Your task to perform on an android device: Do I have any events today? Image 0: 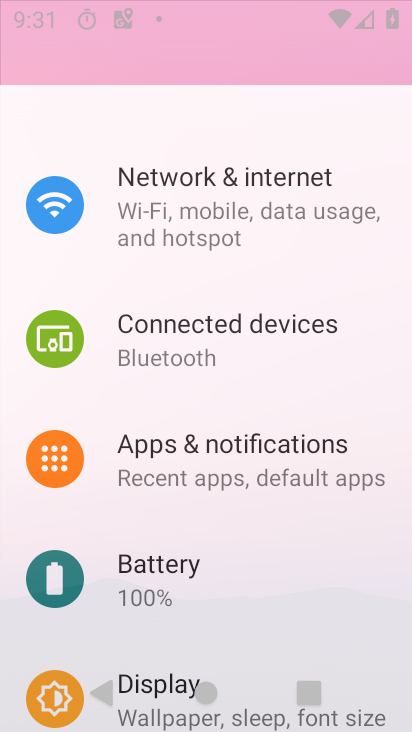
Step 0: drag from (189, 519) to (255, 90)
Your task to perform on an android device: Do I have any events today? Image 1: 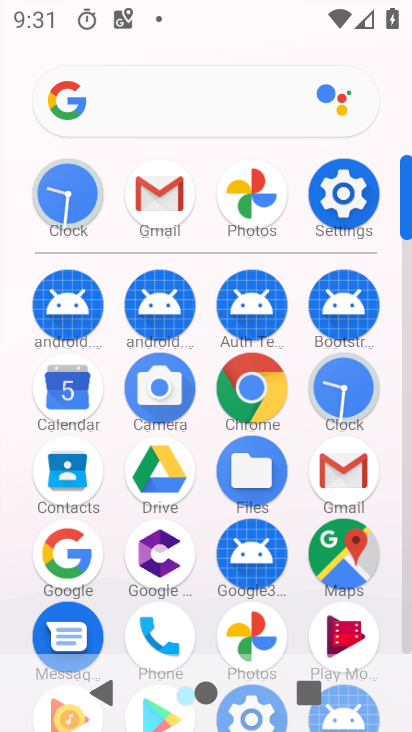
Step 1: click (74, 392)
Your task to perform on an android device: Do I have any events today? Image 2: 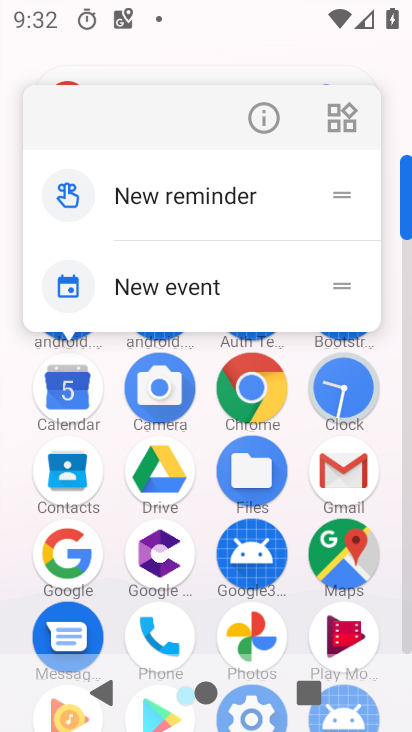
Step 2: click (273, 115)
Your task to perform on an android device: Do I have any events today? Image 3: 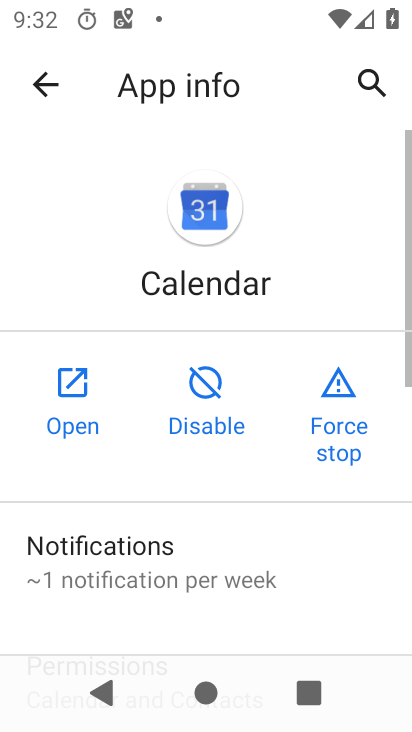
Step 3: click (68, 393)
Your task to perform on an android device: Do I have any events today? Image 4: 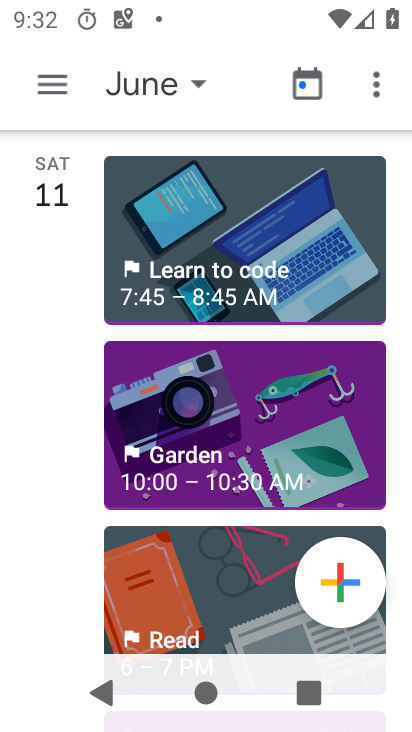
Step 4: drag from (243, 534) to (283, 273)
Your task to perform on an android device: Do I have any events today? Image 5: 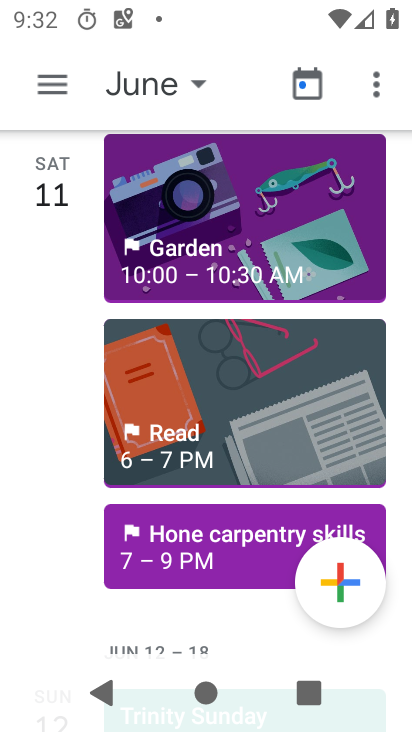
Step 5: drag from (284, 242) to (235, 689)
Your task to perform on an android device: Do I have any events today? Image 6: 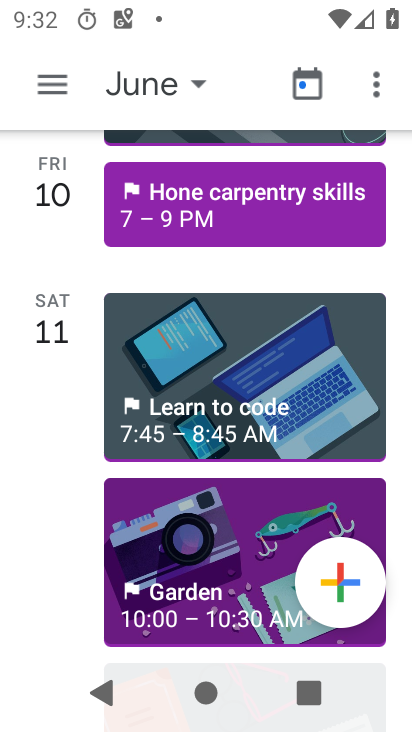
Step 6: drag from (252, 224) to (269, 615)
Your task to perform on an android device: Do I have any events today? Image 7: 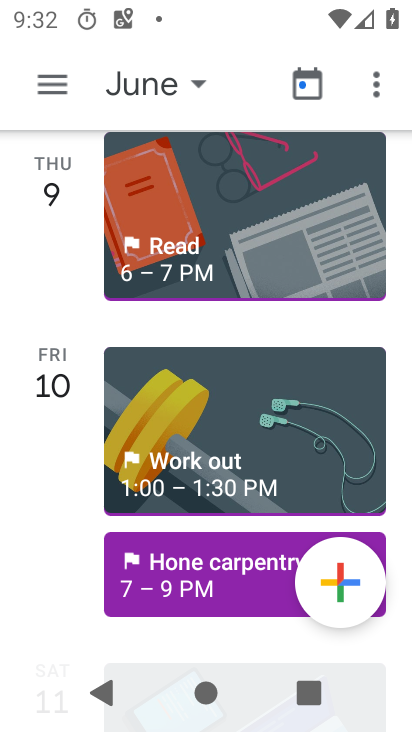
Step 7: click (142, 89)
Your task to perform on an android device: Do I have any events today? Image 8: 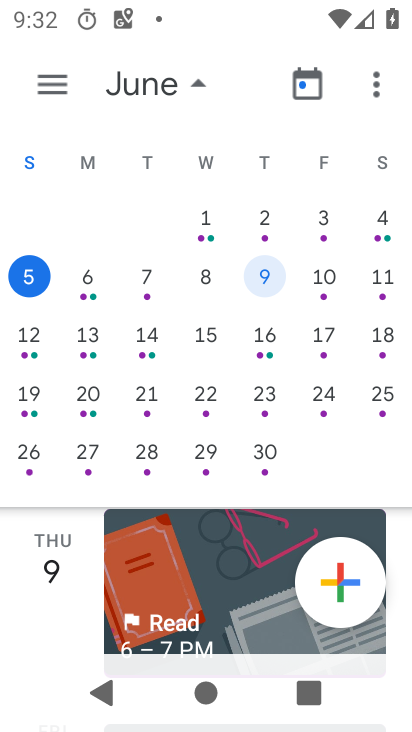
Step 8: drag from (207, 604) to (236, 391)
Your task to perform on an android device: Do I have any events today? Image 9: 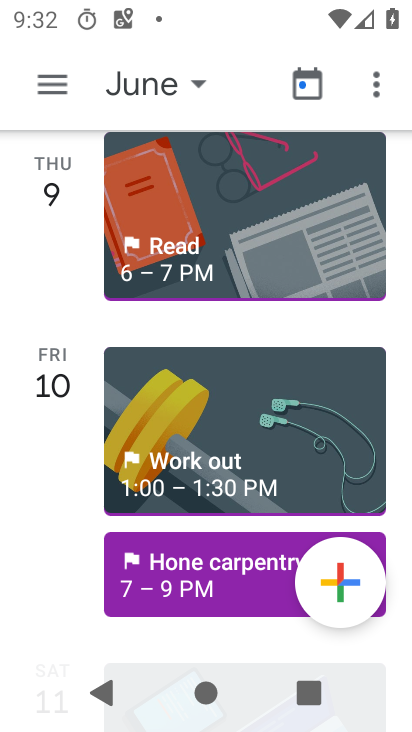
Step 9: click (195, 90)
Your task to perform on an android device: Do I have any events today? Image 10: 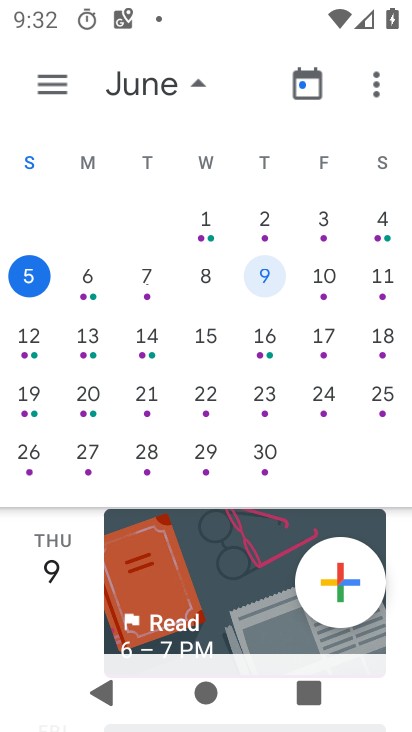
Step 10: click (40, 279)
Your task to perform on an android device: Do I have any events today? Image 11: 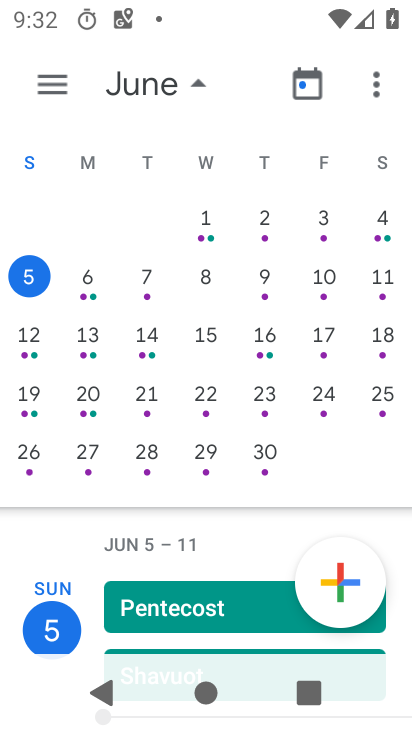
Step 11: task complete